Your task to perform on an android device: change the upload size in google photos Image 0: 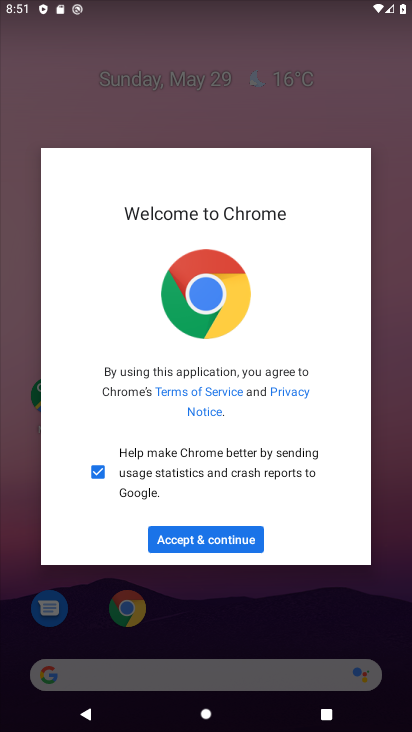
Step 0: press home button
Your task to perform on an android device: change the upload size in google photos Image 1: 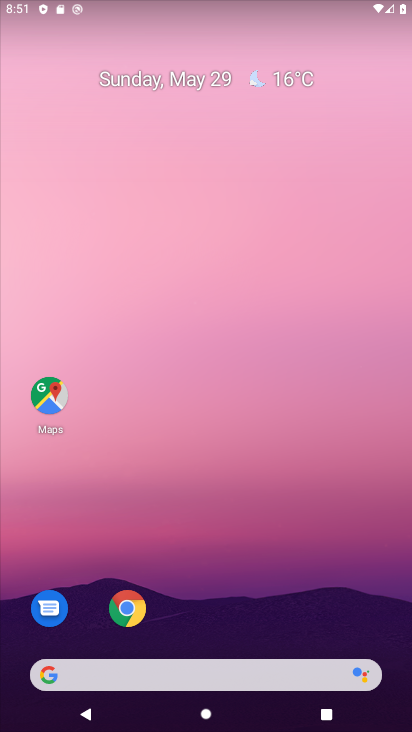
Step 1: drag from (177, 639) to (162, 149)
Your task to perform on an android device: change the upload size in google photos Image 2: 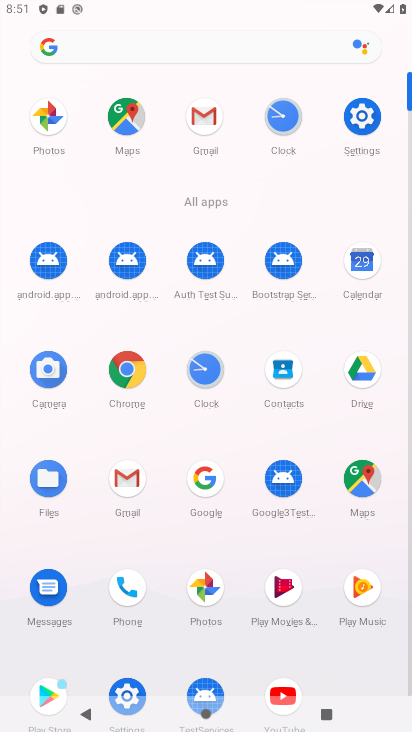
Step 2: click (206, 594)
Your task to perform on an android device: change the upload size in google photos Image 3: 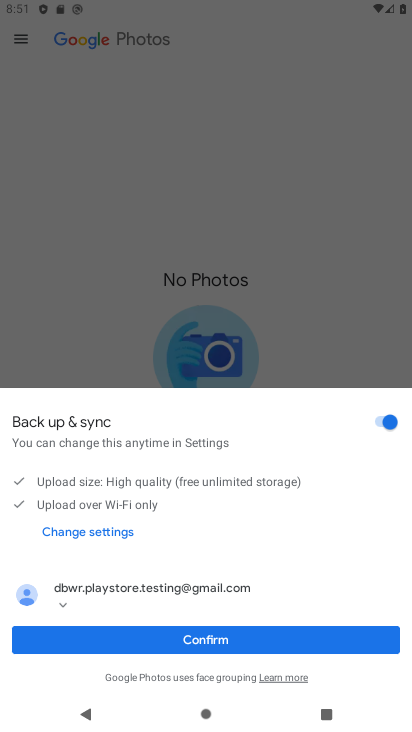
Step 3: click (198, 637)
Your task to perform on an android device: change the upload size in google photos Image 4: 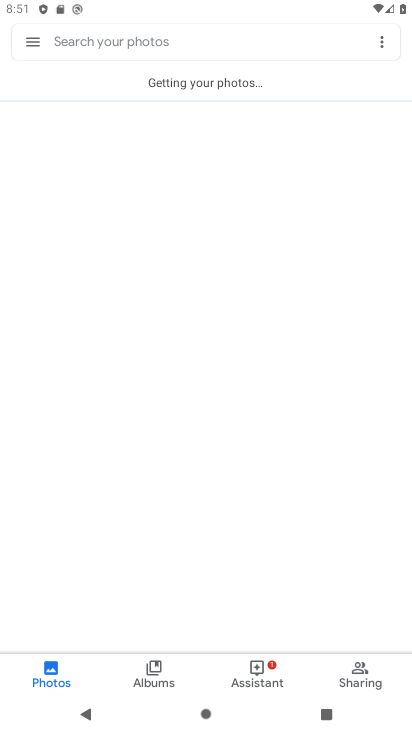
Step 4: click (108, 53)
Your task to perform on an android device: change the upload size in google photos Image 5: 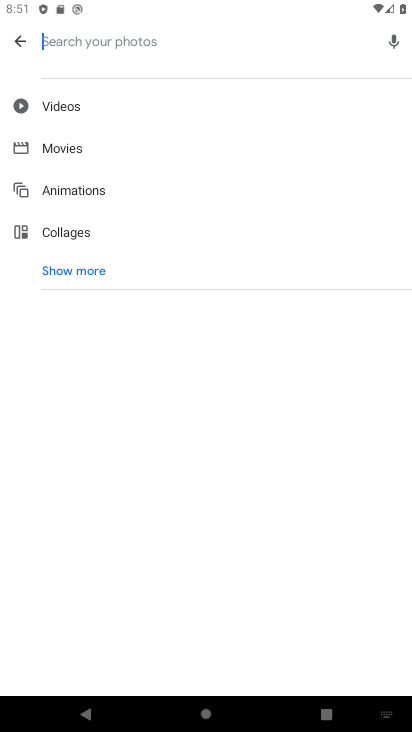
Step 5: click (20, 44)
Your task to perform on an android device: change the upload size in google photos Image 6: 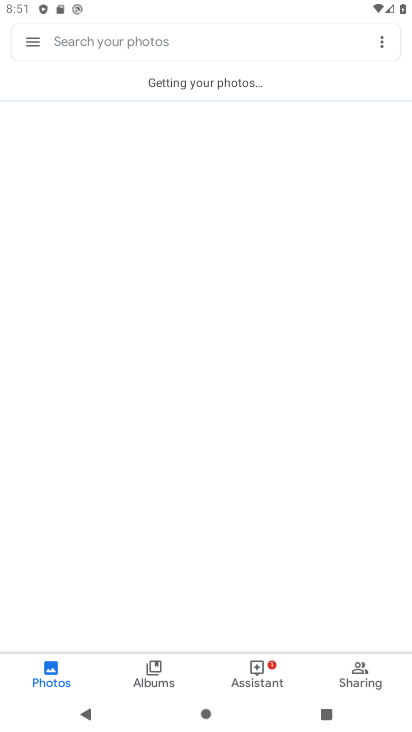
Step 6: click (39, 38)
Your task to perform on an android device: change the upload size in google photos Image 7: 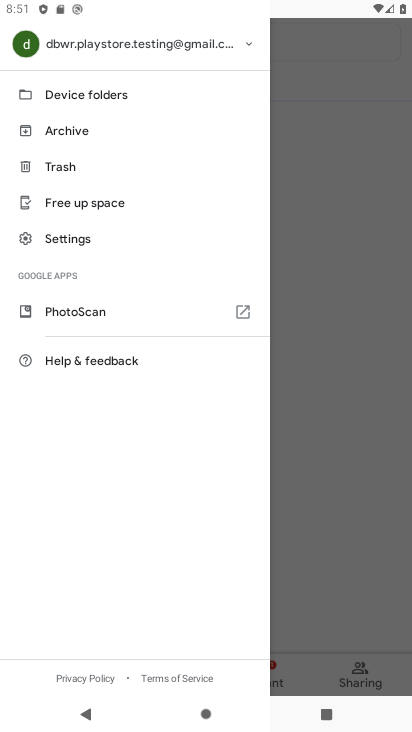
Step 7: click (111, 236)
Your task to perform on an android device: change the upload size in google photos Image 8: 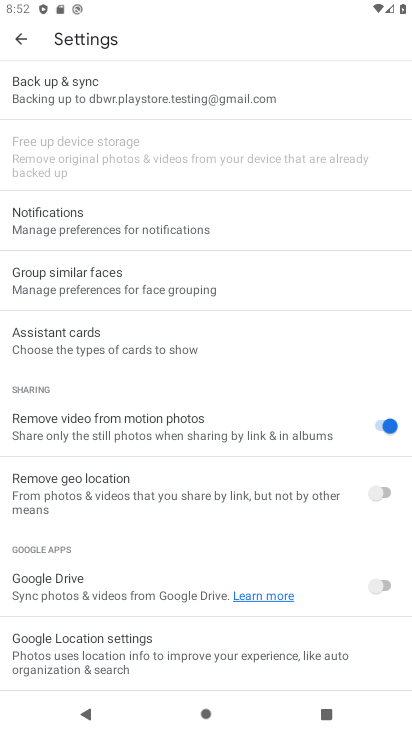
Step 8: click (90, 99)
Your task to perform on an android device: change the upload size in google photos Image 9: 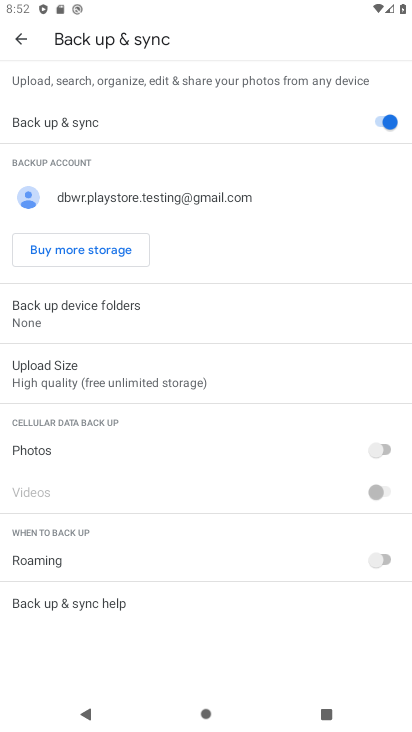
Step 9: click (37, 378)
Your task to perform on an android device: change the upload size in google photos Image 10: 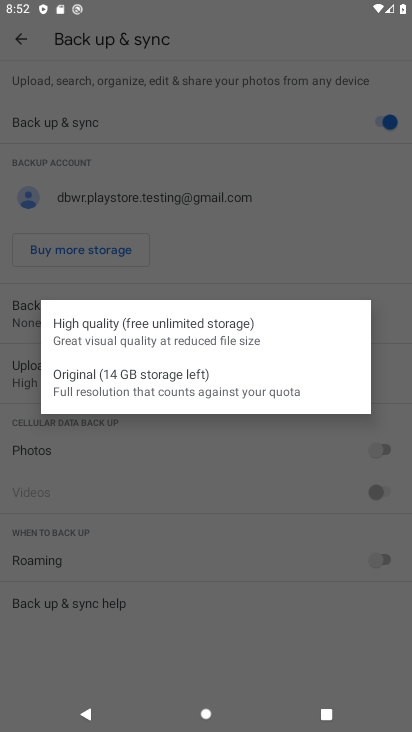
Step 10: click (100, 399)
Your task to perform on an android device: change the upload size in google photos Image 11: 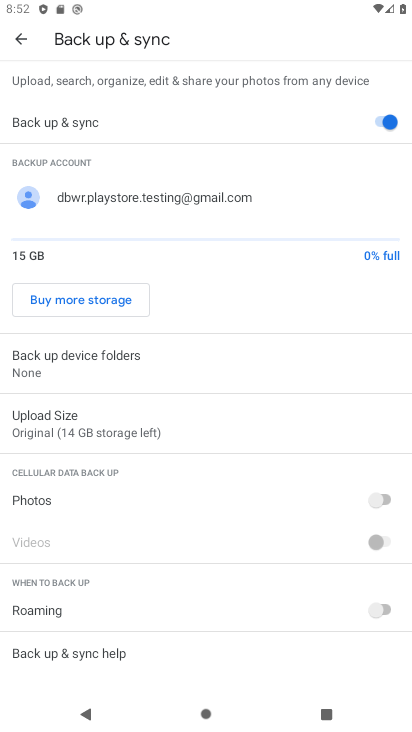
Step 11: task complete